Your task to perform on an android device: Open battery settings Image 0: 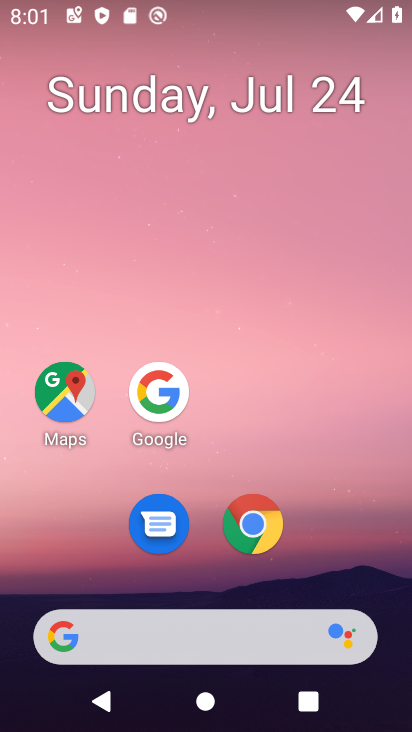
Step 0: press home button
Your task to perform on an android device: Open battery settings Image 1: 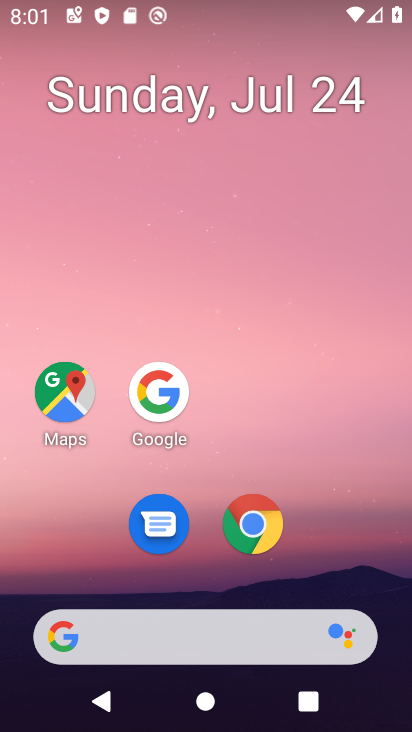
Step 1: drag from (198, 626) to (253, 13)
Your task to perform on an android device: Open battery settings Image 2: 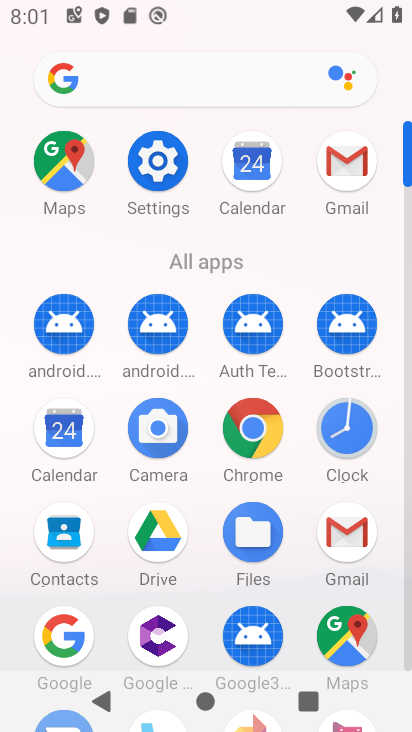
Step 2: click (163, 155)
Your task to perform on an android device: Open battery settings Image 3: 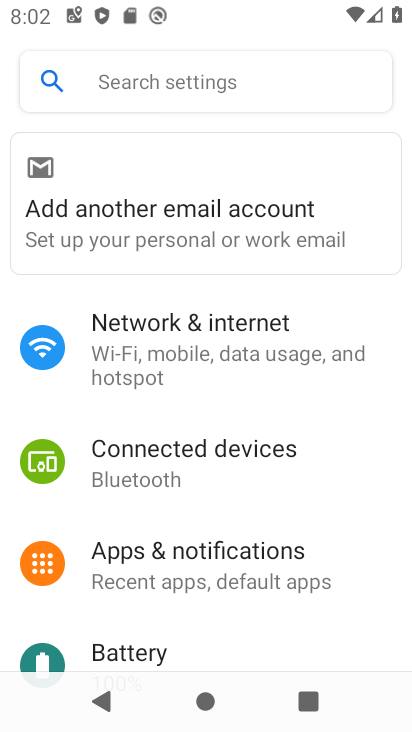
Step 3: click (135, 647)
Your task to perform on an android device: Open battery settings Image 4: 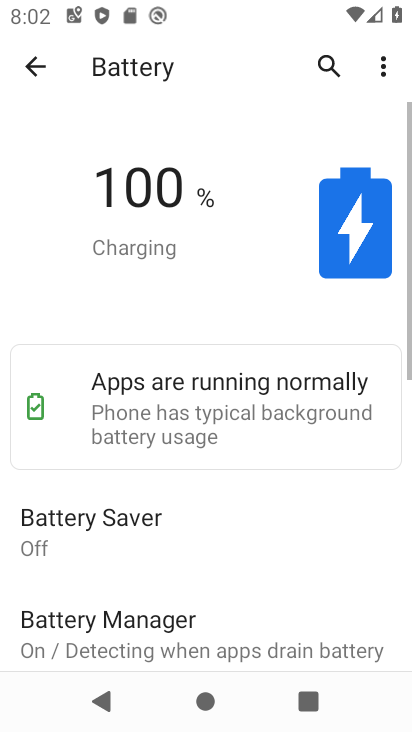
Step 4: task complete